Your task to perform on an android device: What's the weather going to be this weekend? Image 0: 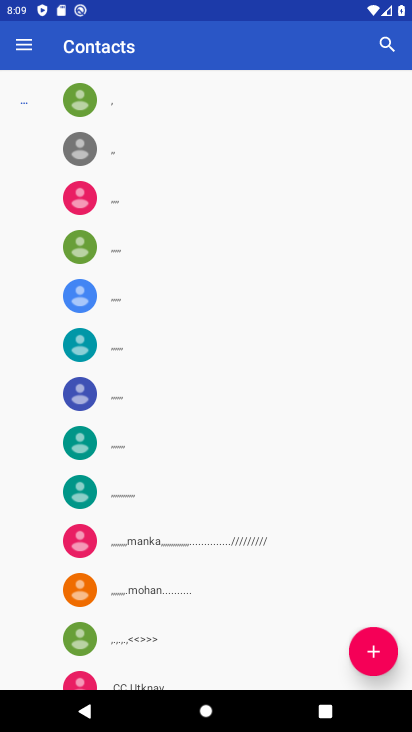
Step 0: press home button
Your task to perform on an android device: What's the weather going to be this weekend? Image 1: 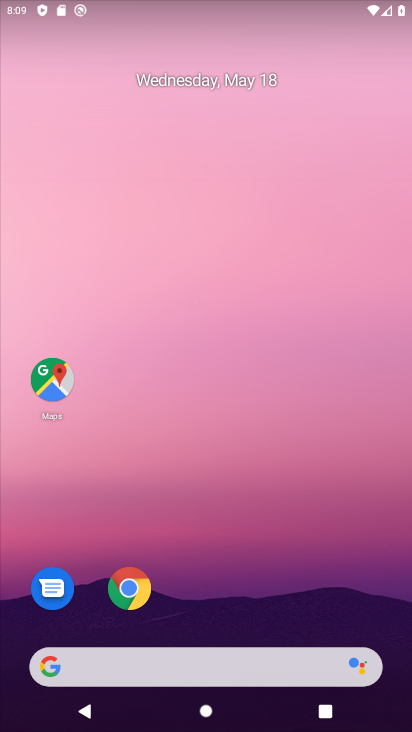
Step 1: click (129, 661)
Your task to perform on an android device: What's the weather going to be this weekend? Image 2: 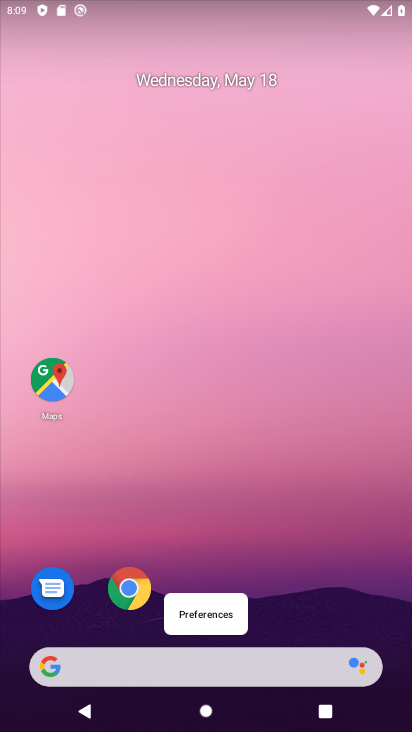
Step 2: click (99, 671)
Your task to perform on an android device: What's the weather going to be this weekend? Image 3: 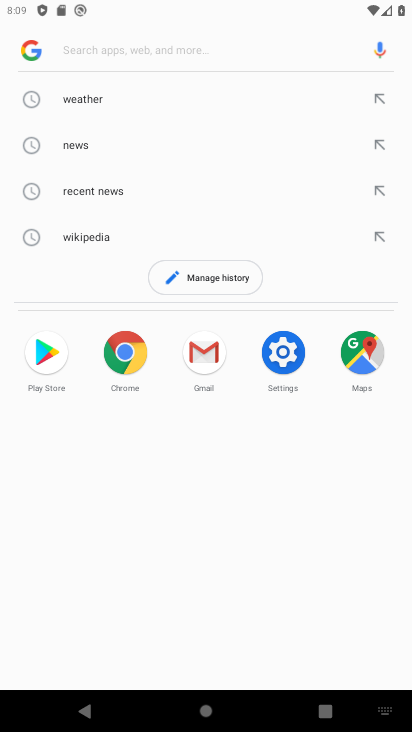
Step 3: click (95, 105)
Your task to perform on an android device: What's the weather going to be this weekend? Image 4: 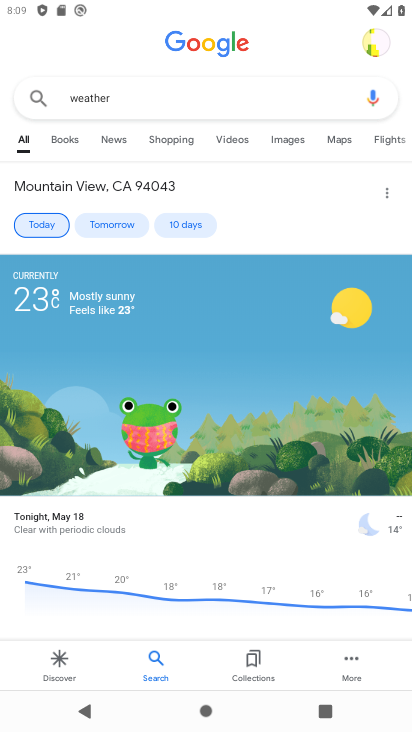
Step 4: click (193, 221)
Your task to perform on an android device: What's the weather going to be this weekend? Image 5: 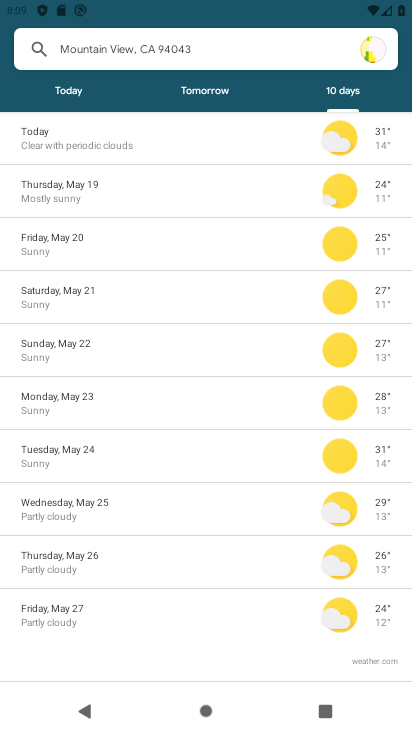
Step 5: task complete